Your task to perform on an android device: Turn off the flashlight Image 0: 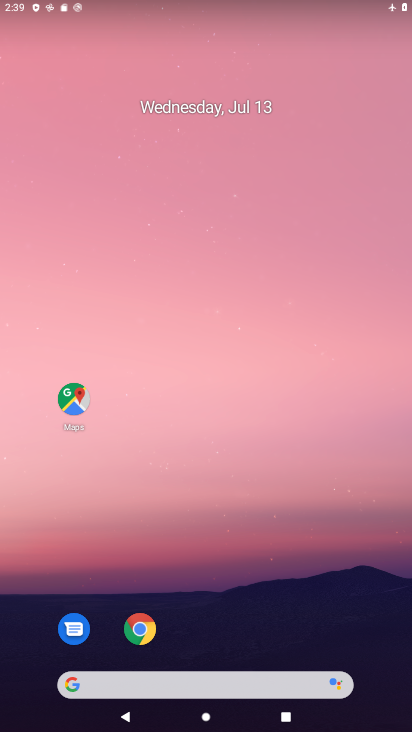
Step 0: drag from (309, 580) to (312, 101)
Your task to perform on an android device: Turn off the flashlight Image 1: 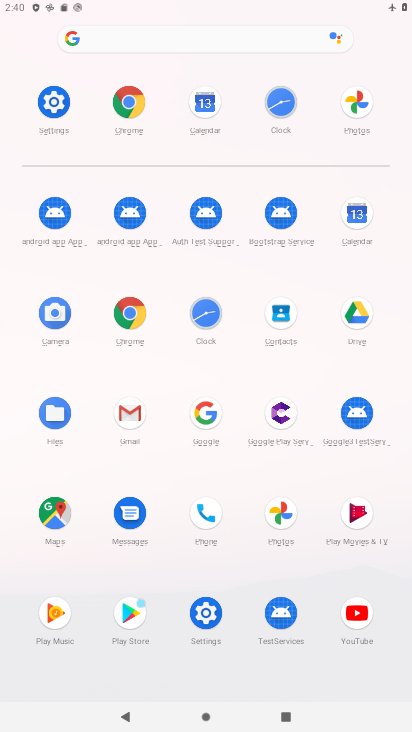
Step 1: click (55, 124)
Your task to perform on an android device: Turn off the flashlight Image 2: 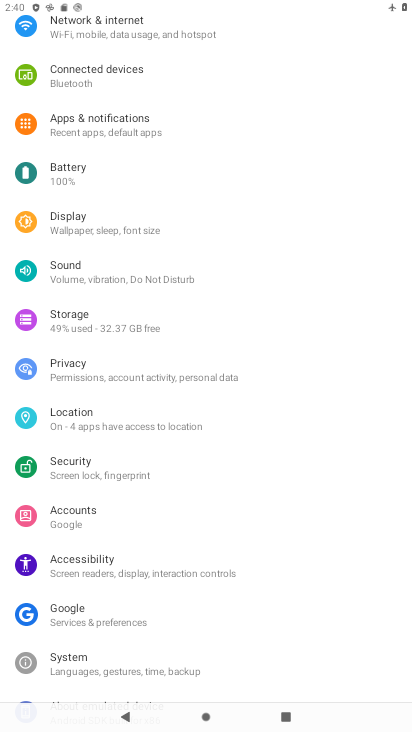
Step 2: task complete